Your task to perform on an android device: find snoozed emails in the gmail app Image 0: 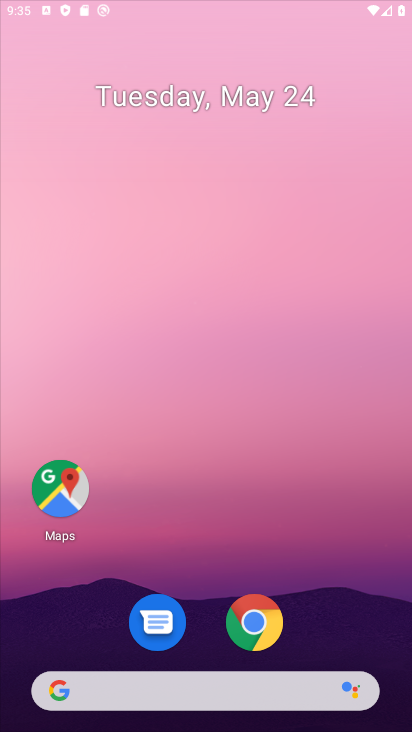
Step 0: drag from (348, 16) to (313, 88)
Your task to perform on an android device: find snoozed emails in the gmail app Image 1: 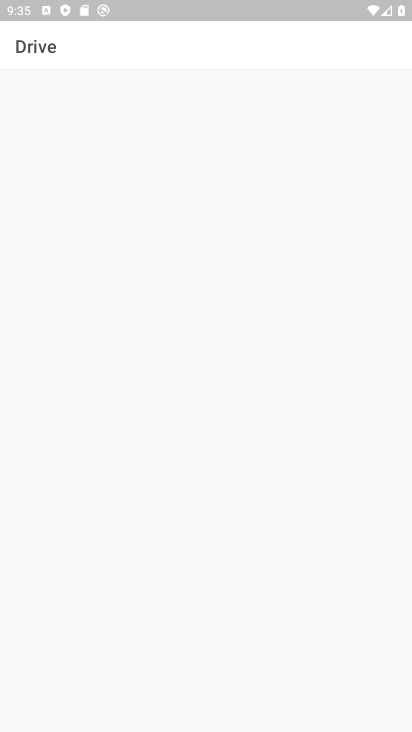
Step 1: press home button
Your task to perform on an android device: find snoozed emails in the gmail app Image 2: 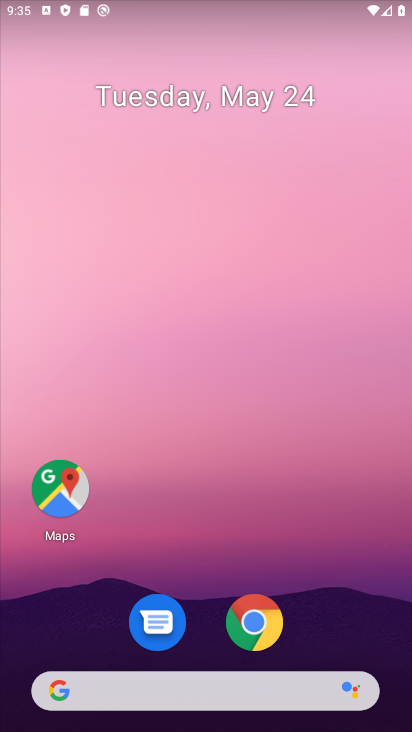
Step 2: drag from (215, 712) to (396, 152)
Your task to perform on an android device: find snoozed emails in the gmail app Image 3: 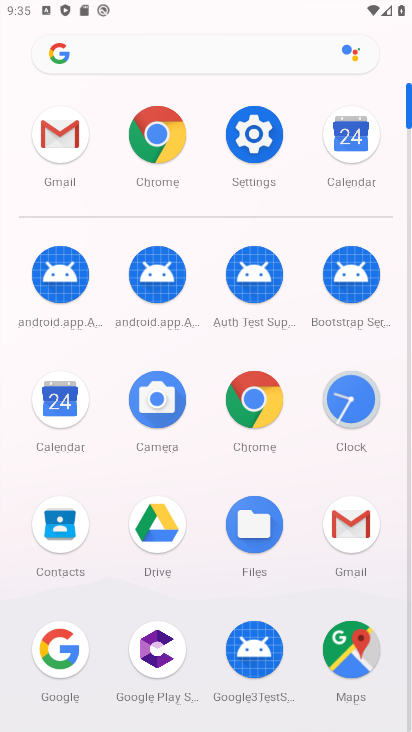
Step 3: click (71, 160)
Your task to perform on an android device: find snoozed emails in the gmail app Image 4: 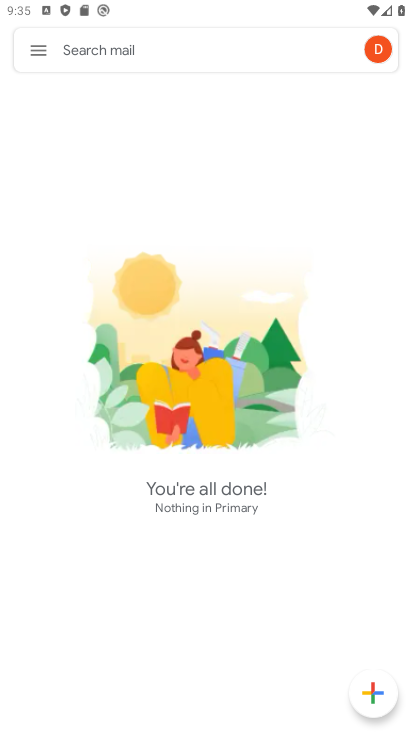
Step 4: click (40, 58)
Your task to perform on an android device: find snoozed emails in the gmail app Image 5: 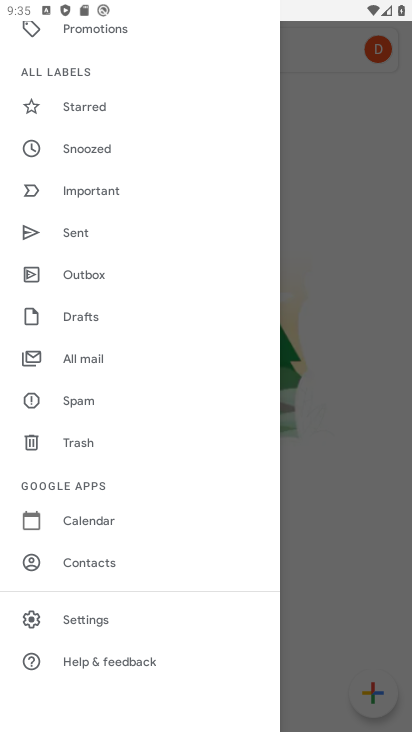
Step 5: click (85, 149)
Your task to perform on an android device: find snoozed emails in the gmail app Image 6: 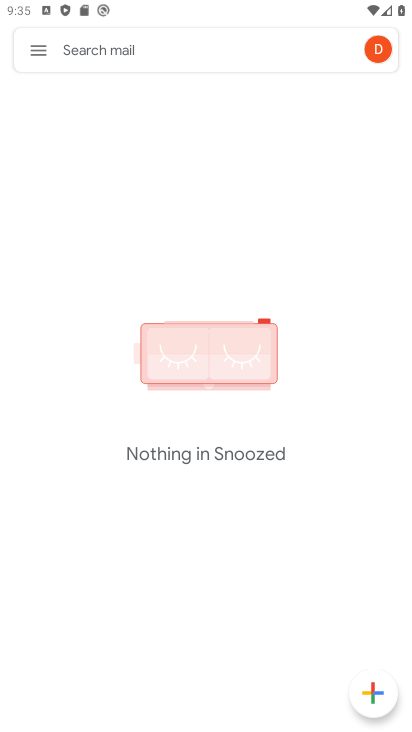
Step 6: task complete